Your task to perform on an android device: clear history in the chrome app Image 0: 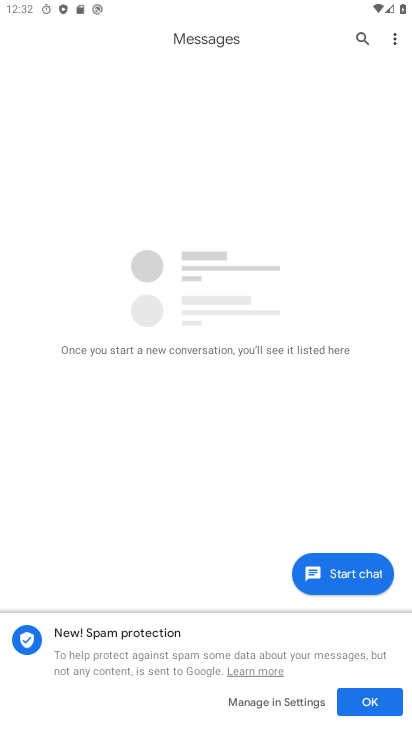
Step 0: click (360, 261)
Your task to perform on an android device: clear history in the chrome app Image 1: 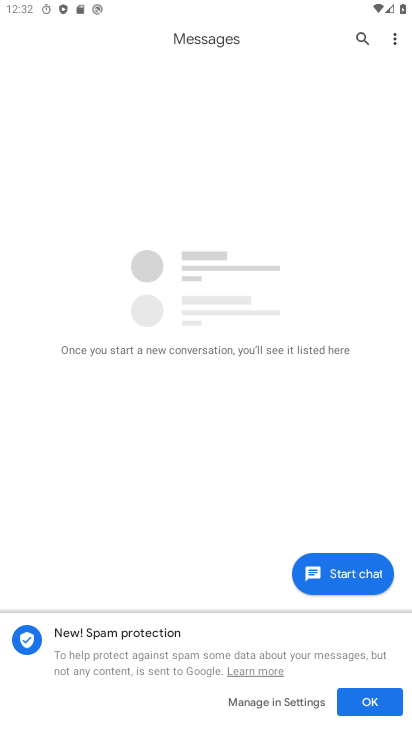
Step 1: drag from (229, 540) to (308, 216)
Your task to perform on an android device: clear history in the chrome app Image 2: 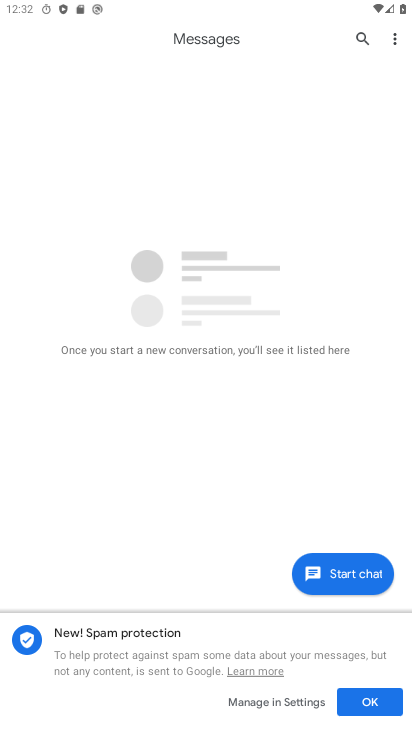
Step 2: press home button
Your task to perform on an android device: clear history in the chrome app Image 3: 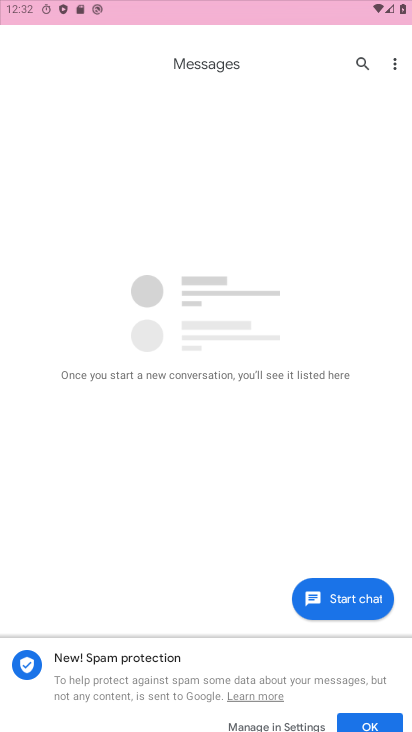
Step 3: drag from (58, 655) to (180, 25)
Your task to perform on an android device: clear history in the chrome app Image 4: 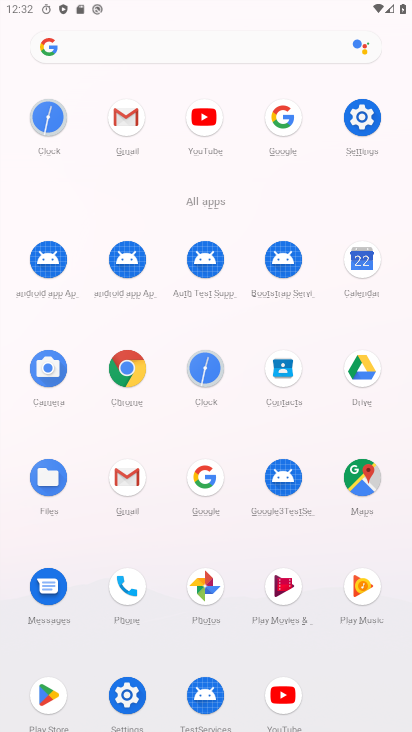
Step 4: click (132, 369)
Your task to perform on an android device: clear history in the chrome app Image 5: 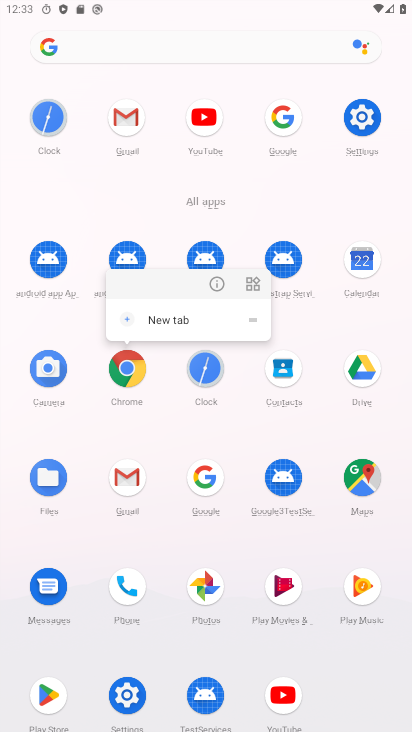
Step 5: click (211, 283)
Your task to perform on an android device: clear history in the chrome app Image 6: 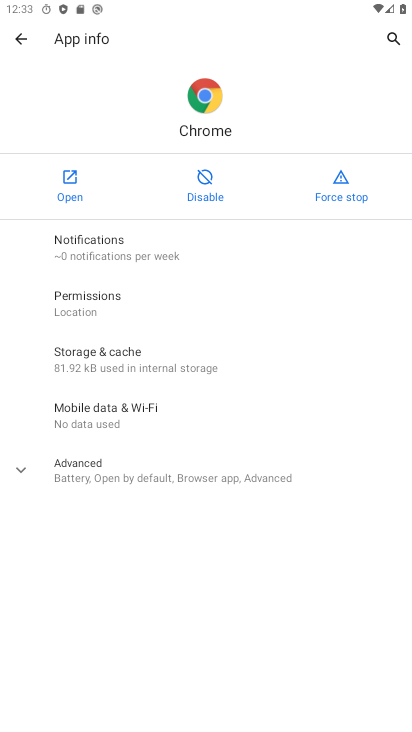
Step 6: click (72, 176)
Your task to perform on an android device: clear history in the chrome app Image 7: 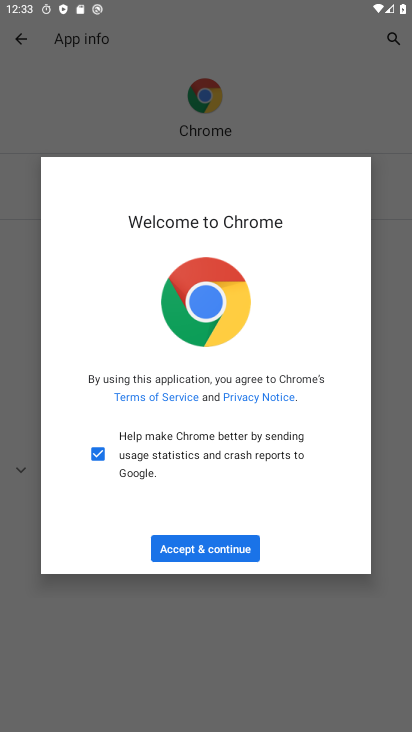
Step 7: click (173, 537)
Your task to perform on an android device: clear history in the chrome app Image 8: 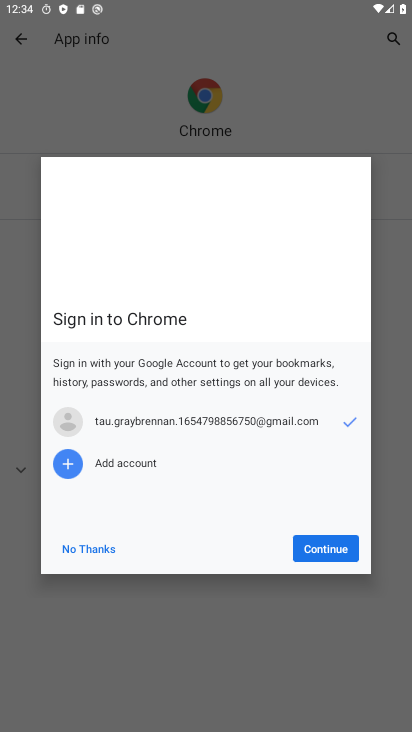
Step 8: click (304, 549)
Your task to perform on an android device: clear history in the chrome app Image 9: 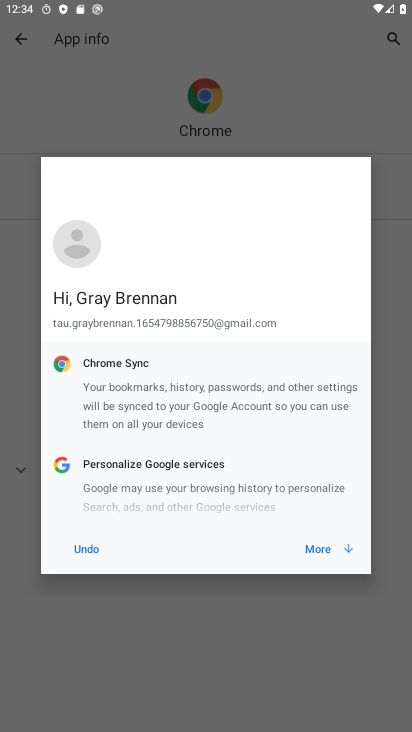
Step 9: click (313, 548)
Your task to perform on an android device: clear history in the chrome app Image 10: 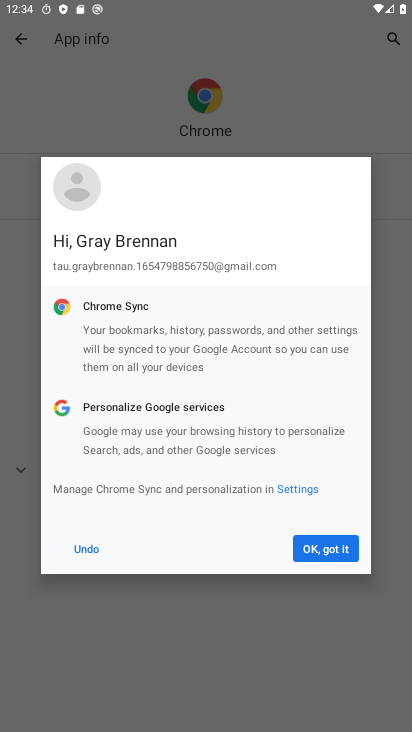
Step 10: drag from (213, 601) to (264, 201)
Your task to perform on an android device: clear history in the chrome app Image 11: 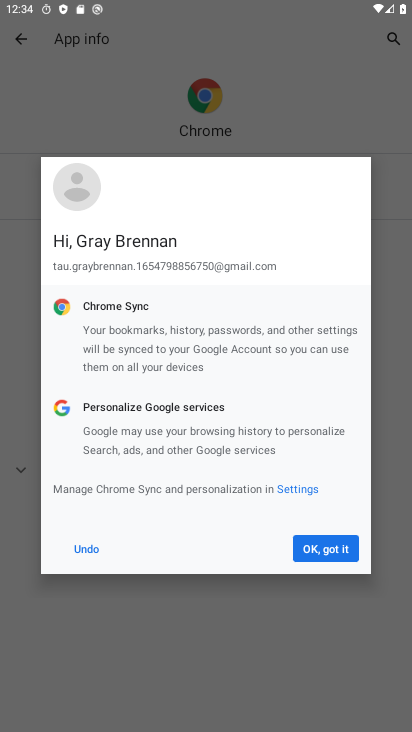
Step 11: drag from (245, 506) to (282, 113)
Your task to perform on an android device: clear history in the chrome app Image 12: 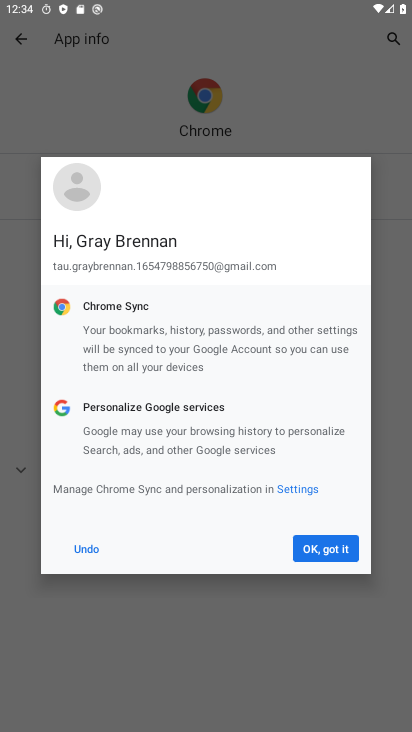
Step 12: drag from (144, 379) to (219, 93)
Your task to perform on an android device: clear history in the chrome app Image 13: 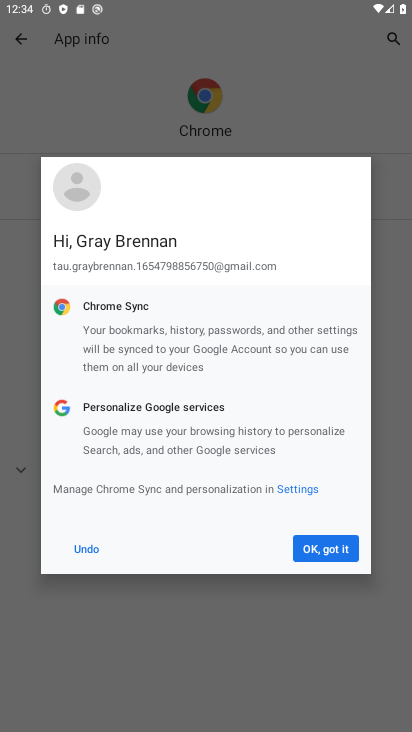
Step 13: click (316, 546)
Your task to perform on an android device: clear history in the chrome app Image 14: 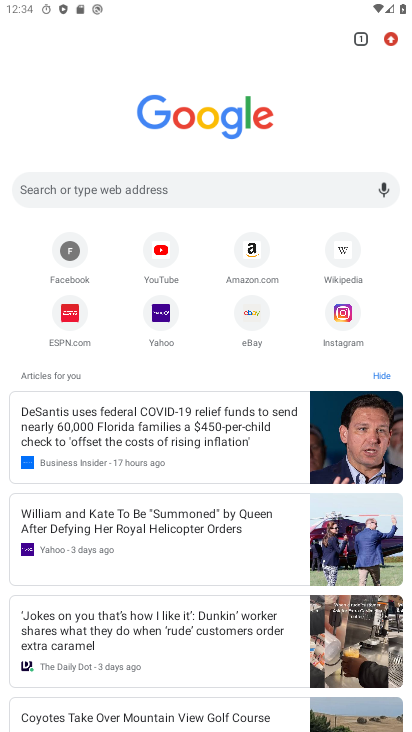
Step 14: drag from (204, 457) to (155, 726)
Your task to perform on an android device: clear history in the chrome app Image 15: 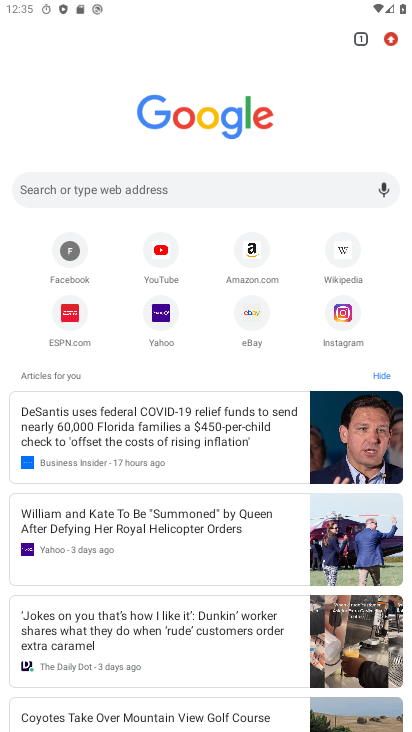
Step 15: drag from (393, 39) to (250, 262)
Your task to perform on an android device: clear history in the chrome app Image 16: 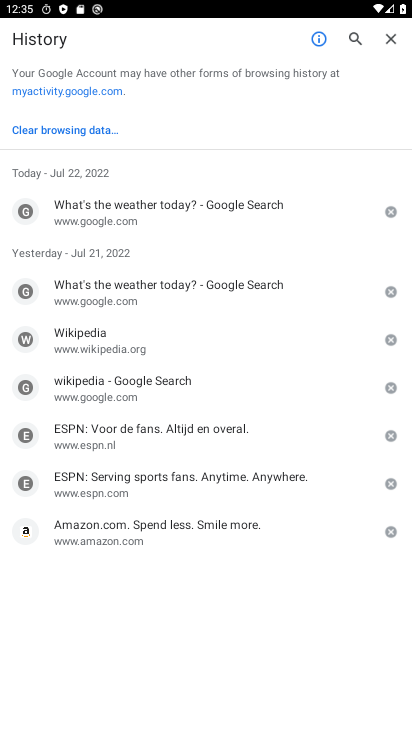
Step 16: click (42, 125)
Your task to perform on an android device: clear history in the chrome app Image 17: 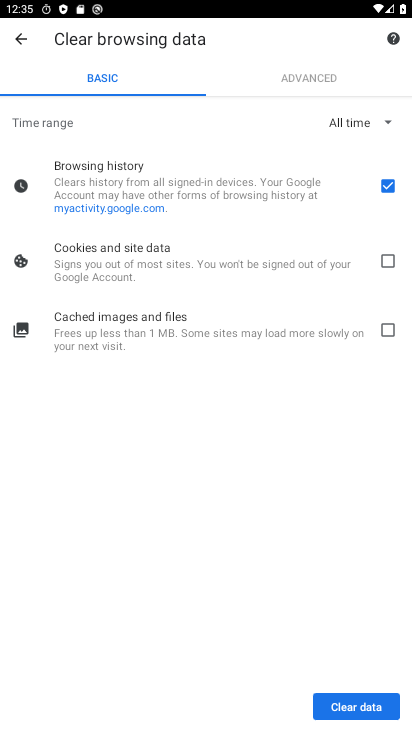
Step 17: drag from (198, 528) to (233, 291)
Your task to perform on an android device: clear history in the chrome app Image 18: 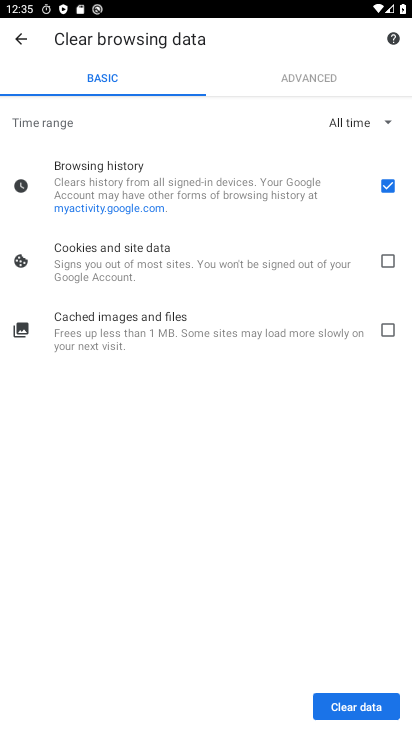
Step 18: click (346, 718)
Your task to perform on an android device: clear history in the chrome app Image 19: 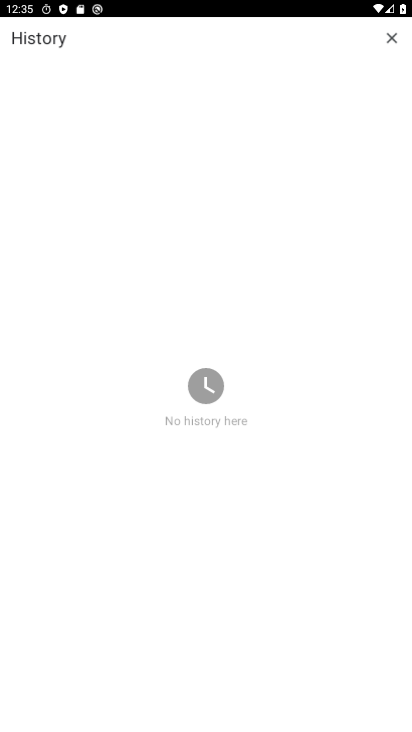
Step 19: click (342, 710)
Your task to perform on an android device: clear history in the chrome app Image 20: 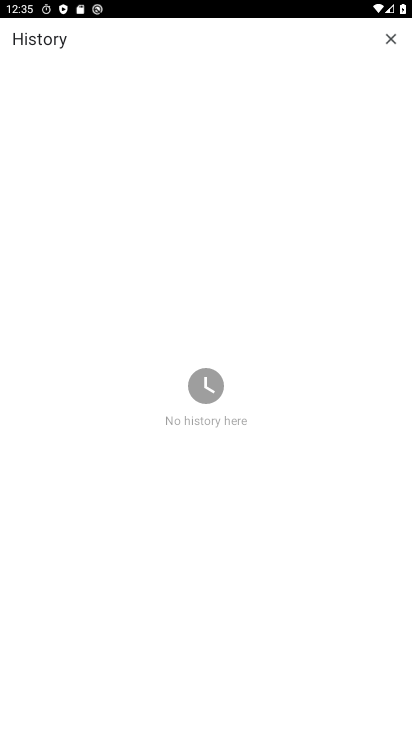
Step 20: task complete